Your task to perform on an android device: turn on priority inbox in the gmail app Image 0: 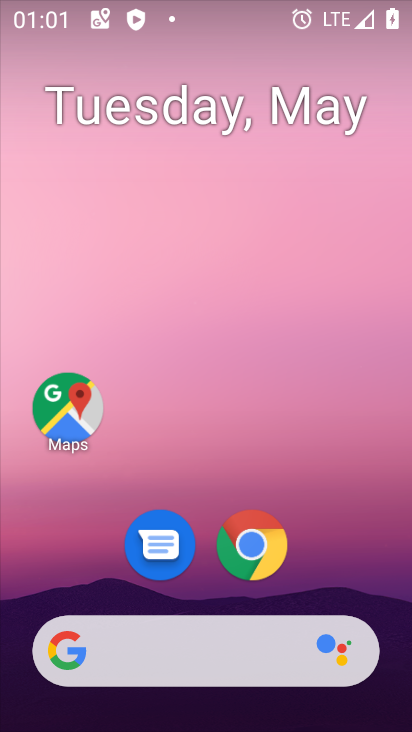
Step 0: drag from (354, 578) to (340, 55)
Your task to perform on an android device: turn on priority inbox in the gmail app Image 1: 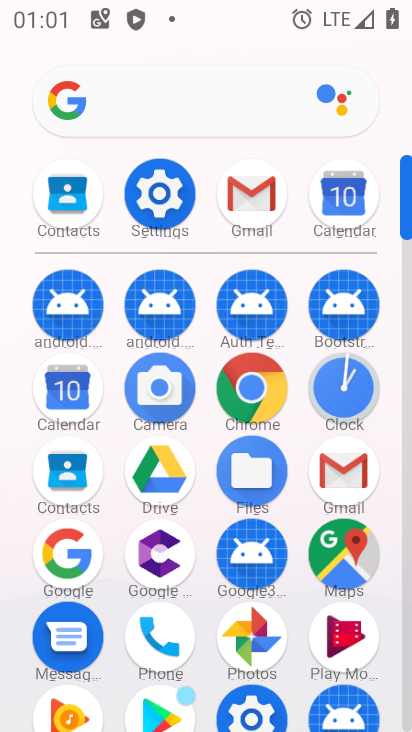
Step 1: click (344, 461)
Your task to perform on an android device: turn on priority inbox in the gmail app Image 2: 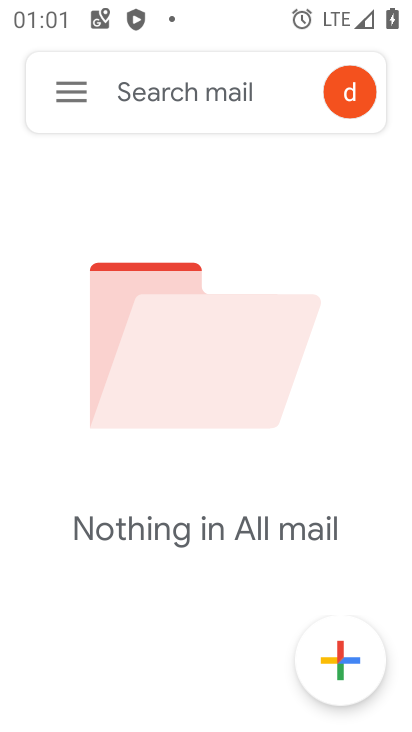
Step 2: click (58, 100)
Your task to perform on an android device: turn on priority inbox in the gmail app Image 3: 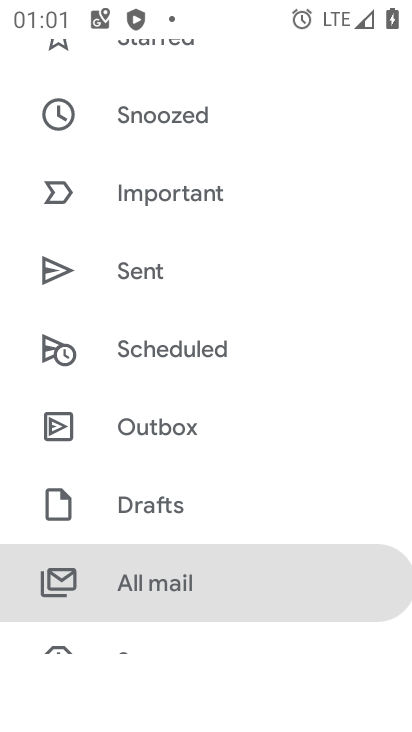
Step 3: drag from (139, 571) to (121, 152)
Your task to perform on an android device: turn on priority inbox in the gmail app Image 4: 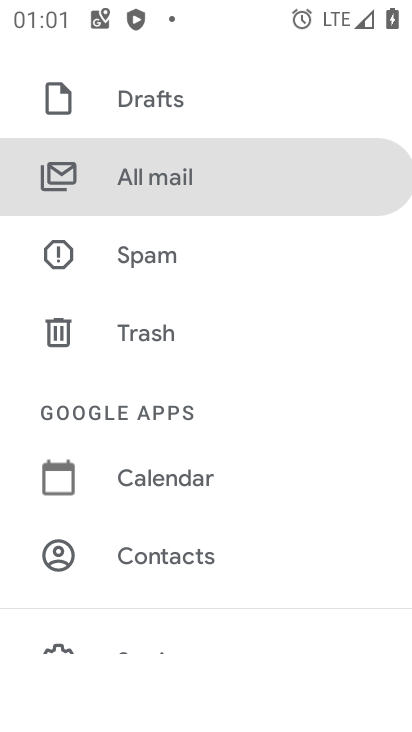
Step 4: drag from (179, 515) to (190, 262)
Your task to perform on an android device: turn on priority inbox in the gmail app Image 5: 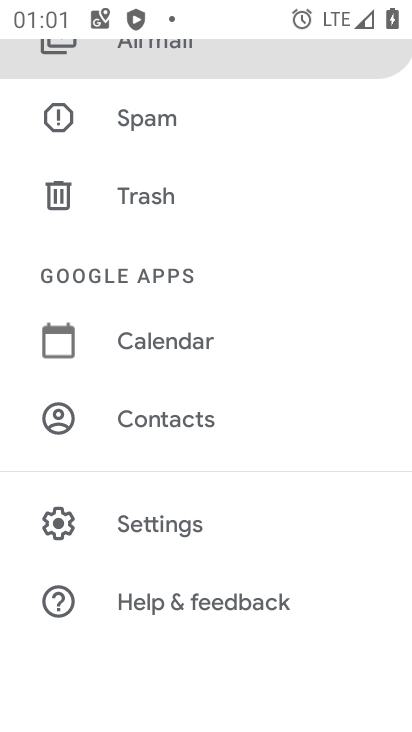
Step 5: click (141, 520)
Your task to perform on an android device: turn on priority inbox in the gmail app Image 6: 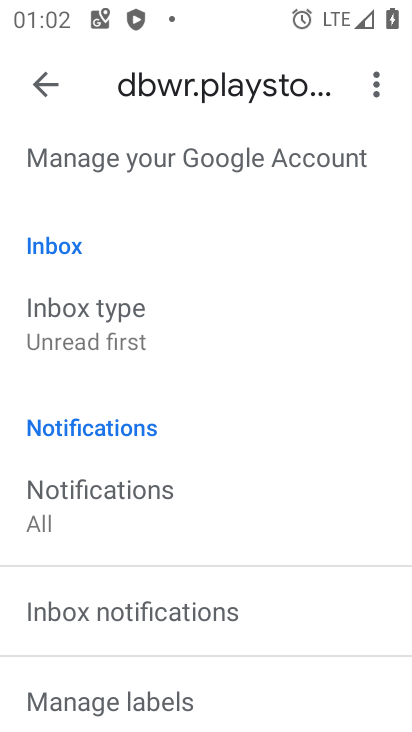
Step 6: click (125, 343)
Your task to perform on an android device: turn on priority inbox in the gmail app Image 7: 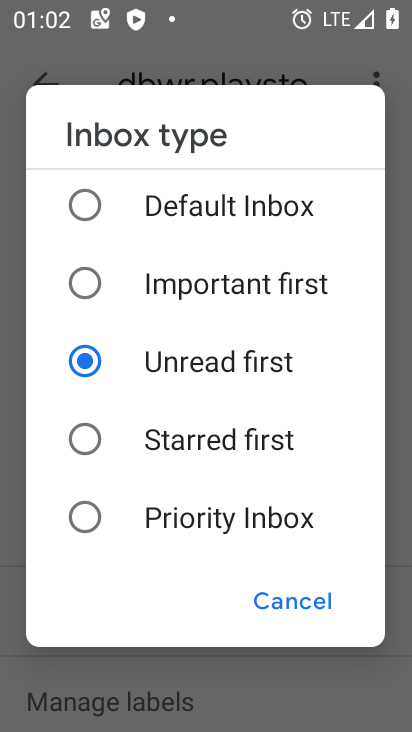
Step 7: click (142, 530)
Your task to perform on an android device: turn on priority inbox in the gmail app Image 8: 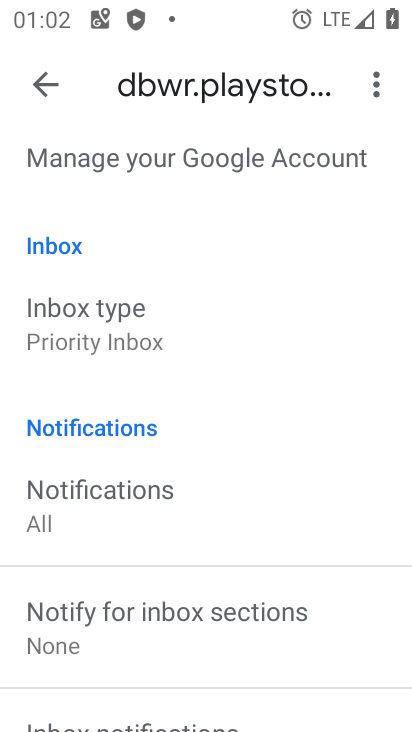
Step 8: task complete